Your task to perform on an android device: Do I have any events this weekend? Image 0: 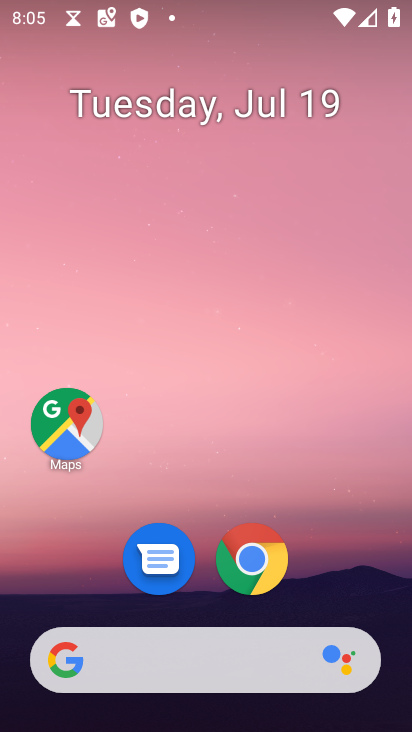
Step 0: drag from (103, 537) to (196, 19)
Your task to perform on an android device: Do I have any events this weekend? Image 1: 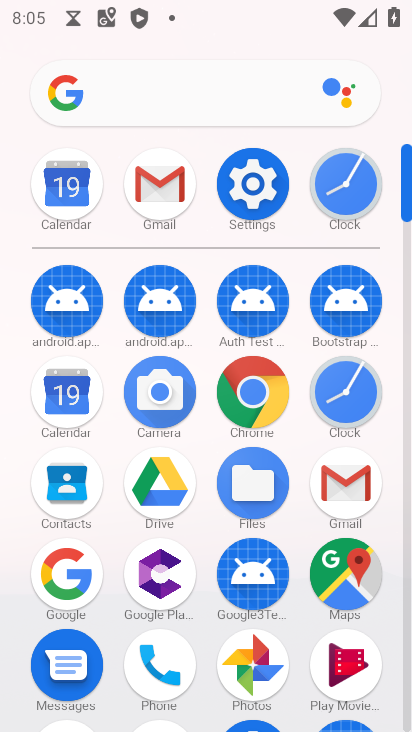
Step 1: click (78, 398)
Your task to perform on an android device: Do I have any events this weekend? Image 2: 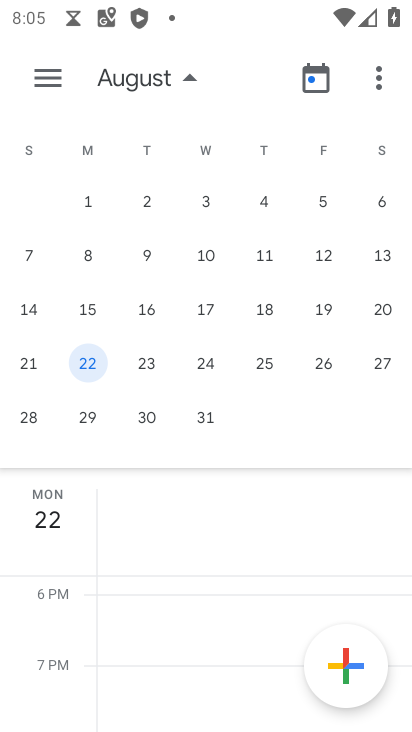
Step 2: drag from (76, 314) to (375, 282)
Your task to perform on an android device: Do I have any events this weekend? Image 3: 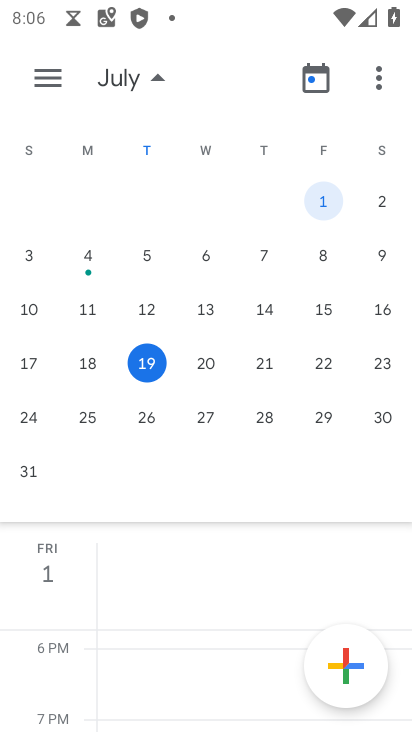
Step 3: click (366, 353)
Your task to perform on an android device: Do I have any events this weekend? Image 4: 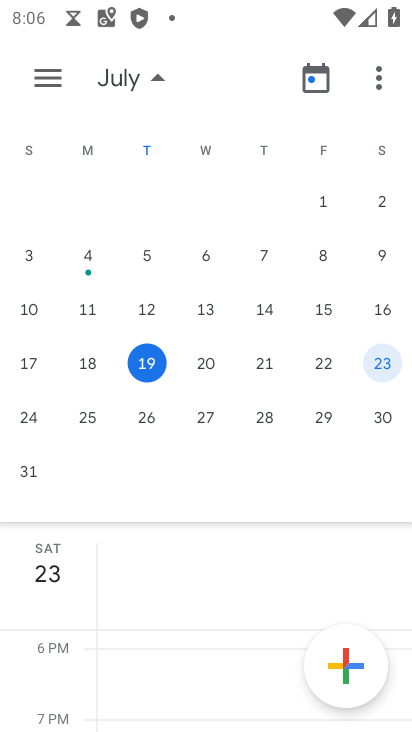
Step 4: click (35, 69)
Your task to perform on an android device: Do I have any events this weekend? Image 5: 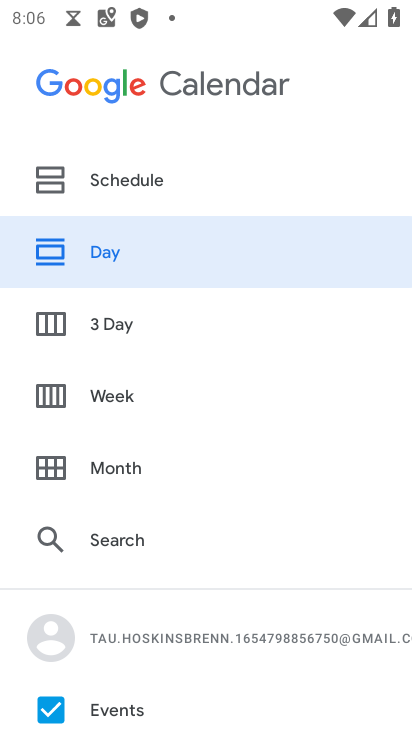
Step 5: click (115, 178)
Your task to perform on an android device: Do I have any events this weekend? Image 6: 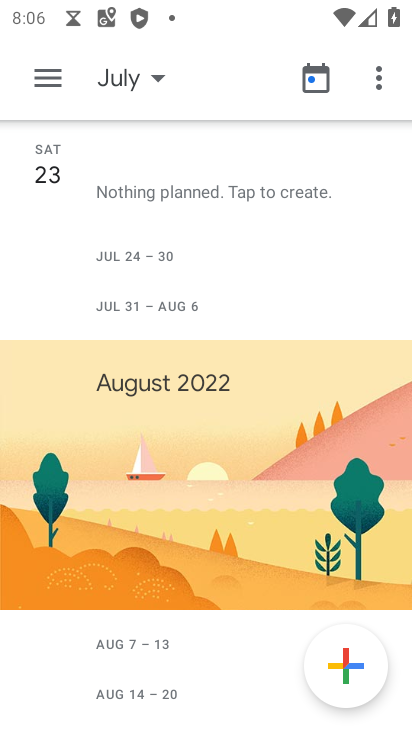
Step 6: task complete